Your task to perform on an android device: Open Chrome and go to the settings page Image 0: 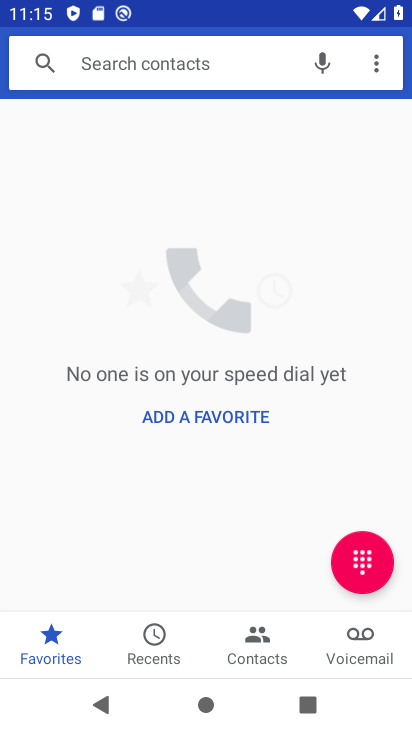
Step 0: press back button
Your task to perform on an android device: Open Chrome and go to the settings page Image 1: 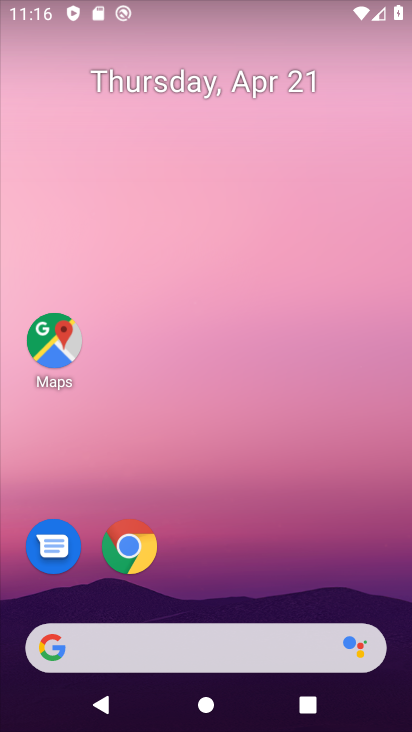
Step 1: click (133, 542)
Your task to perform on an android device: Open Chrome and go to the settings page Image 2: 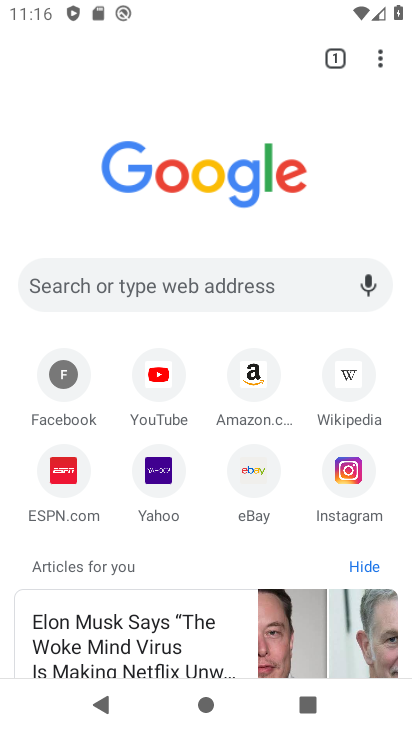
Step 2: click (382, 56)
Your task to perform on an android device: Open Chrome and go to the settings page Image 3: 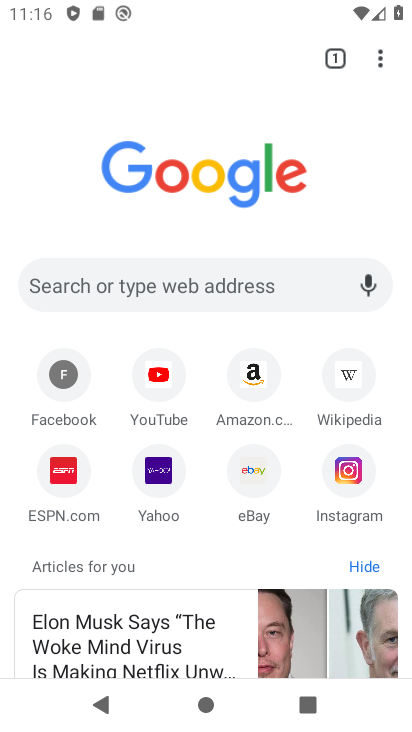
Step 3: click (380, 55)
Your task to perform on an android device: Open Chrome and go to the settings page Image 4: 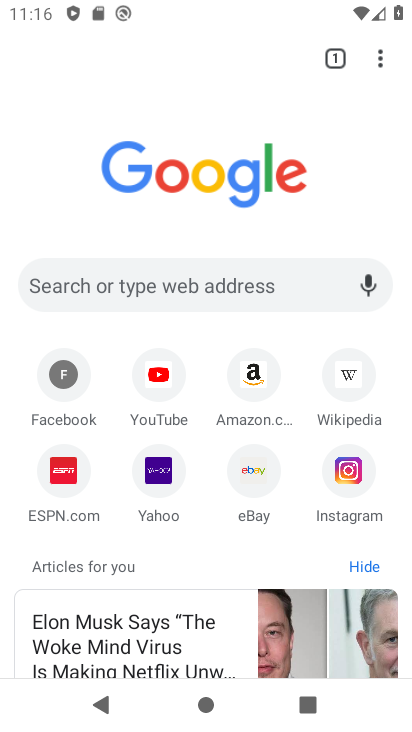
Step 4: click (380, 55)
Your task to perform on an android device: Open Chrome and go to the settings page Image 5: 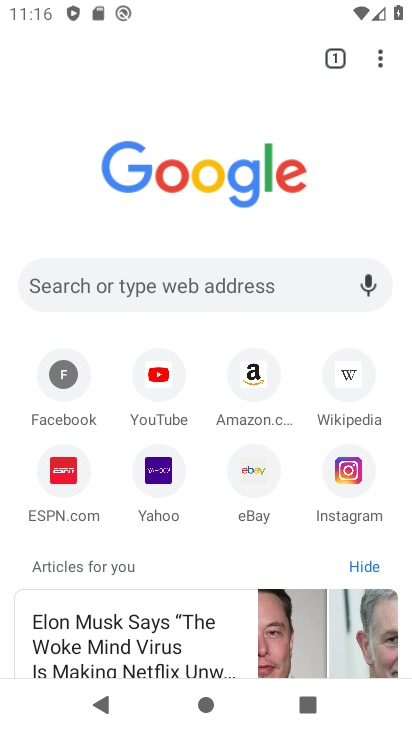
Step 5: click (380, 55)
Your task to perform on an android device: Open Chrome and go to the settings page Image 6: 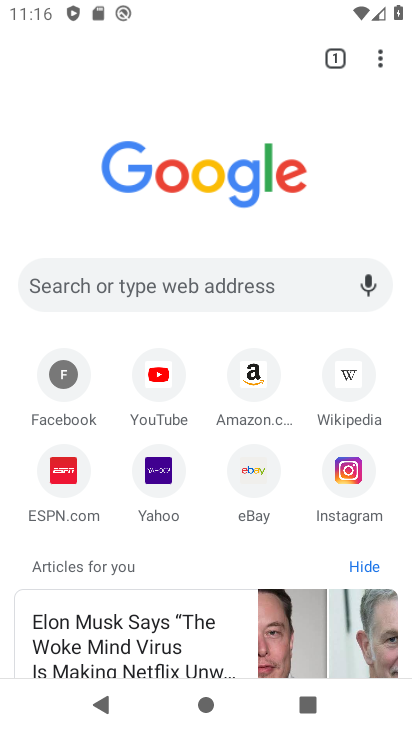
Step 6: click (373, 56)
Your task to perform on an android device: Open Chrome and go to the settings page Image 7: 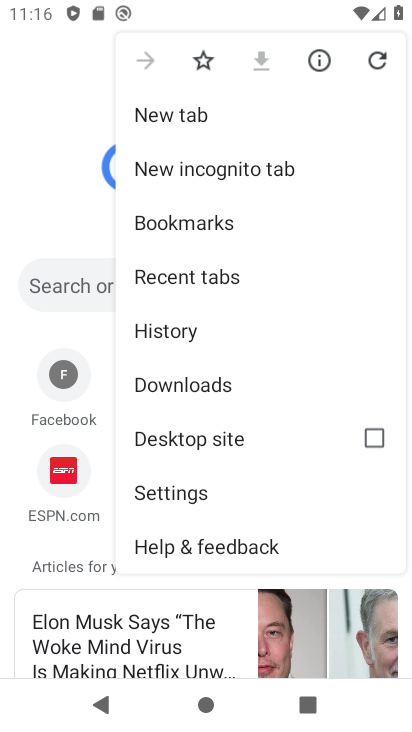
Step 7: click (175, 489)
Your task to perform on an android device: Open Chrome and go to the settings page Image 8: 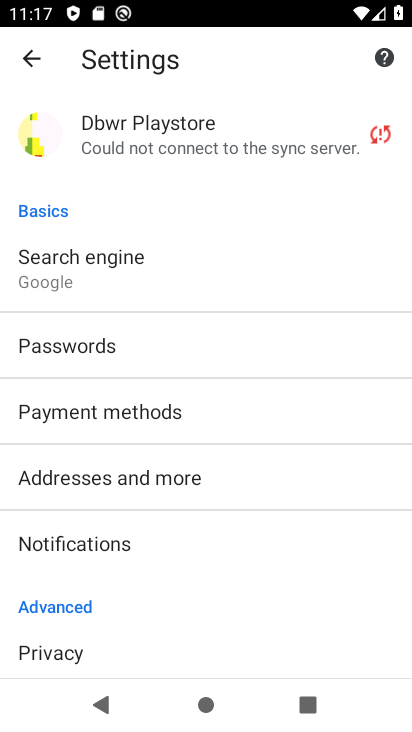
Step 8: task complete